Your task to perform on an android device: turn on the 24-hour format for clock Image 0: 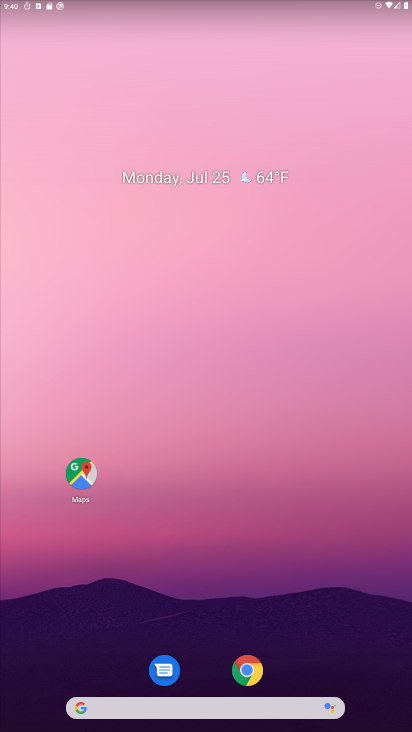
Step 0: drag from (397, 638) to (214, 107)
Your task to perform on an android device: turn on the 24-hour format for clock Image 1: 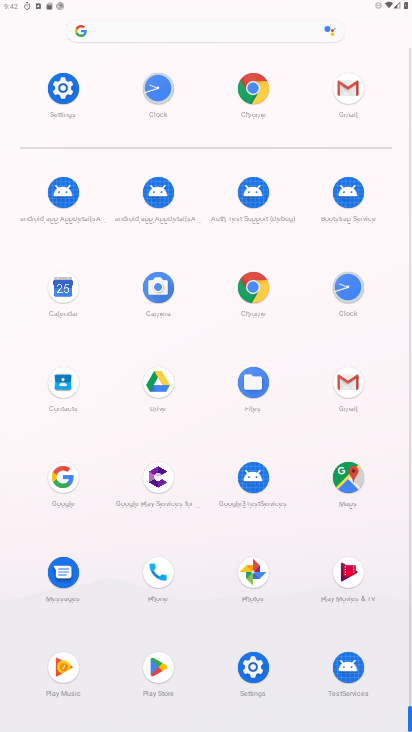
Step 1: click (353, 299)
Your task to perform on an android device: turn on the 24-hour format for clock Image 2: 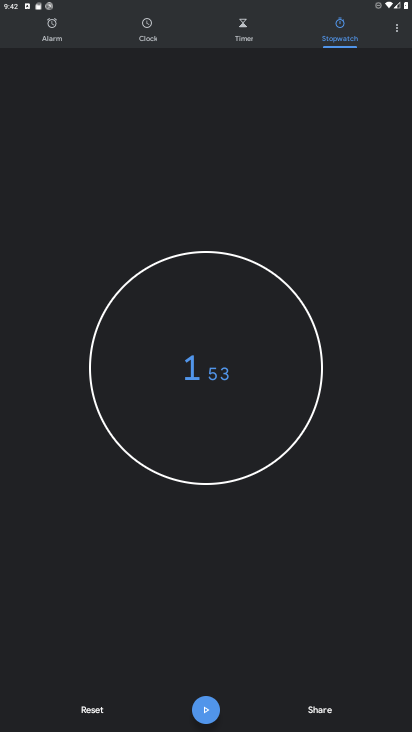
Step 2: click (396, 27)
Your task to perform on an android device: turn on the 24-hour format for clock Image 3: 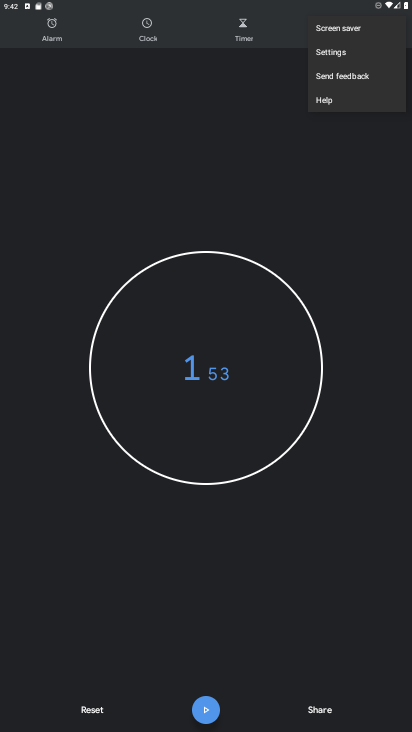
Step 3: click (349, 56)
Your task to perform on an android device: turn on the 24-hour format for clock Image 4: 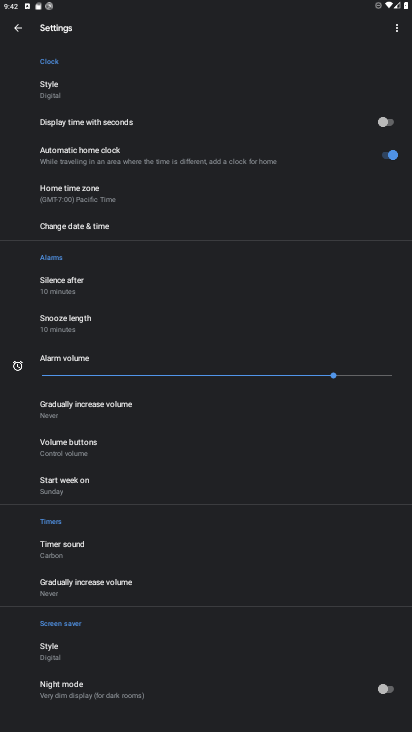
Step 4: click (89, 230)
Your task to perform on an android device: turn on the 24-hour format for clock Image 5: 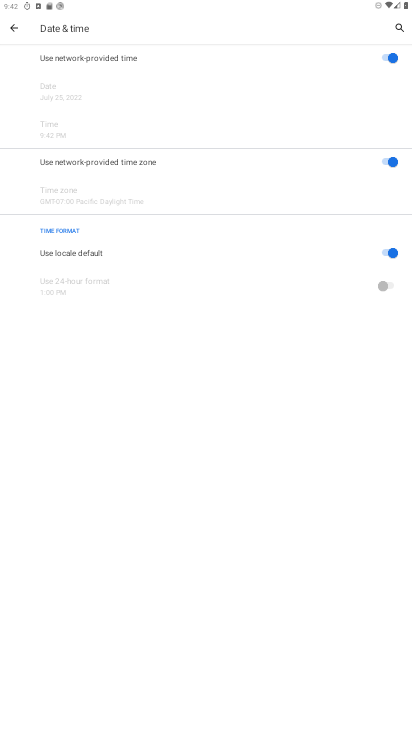
Step 5: task complete